Your task to perform on an android device: Go to notification settings Image 0: 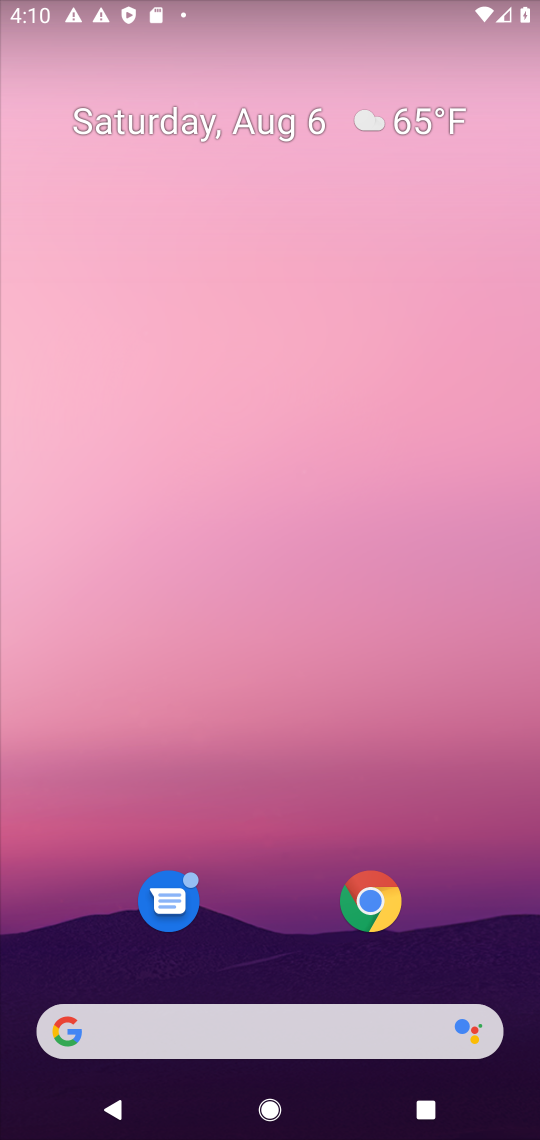
Step 0: press home button
Your task to perform on an android device: Go to notification settings Image 1: 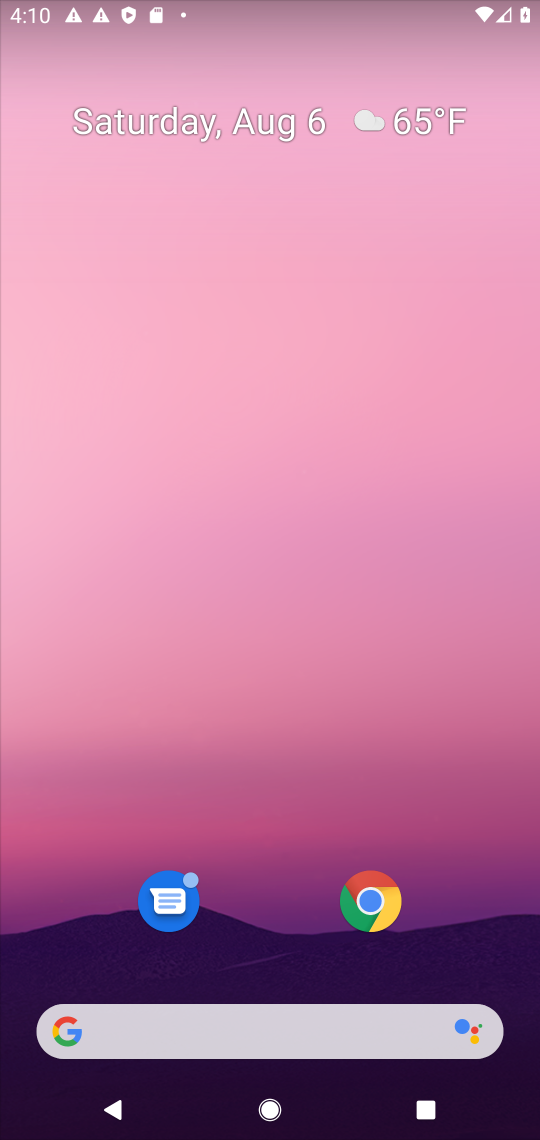
Step 1: drag from (250, 847) to (266, 3)
Your task to perform on an android device: Go to notification settings Image 2: 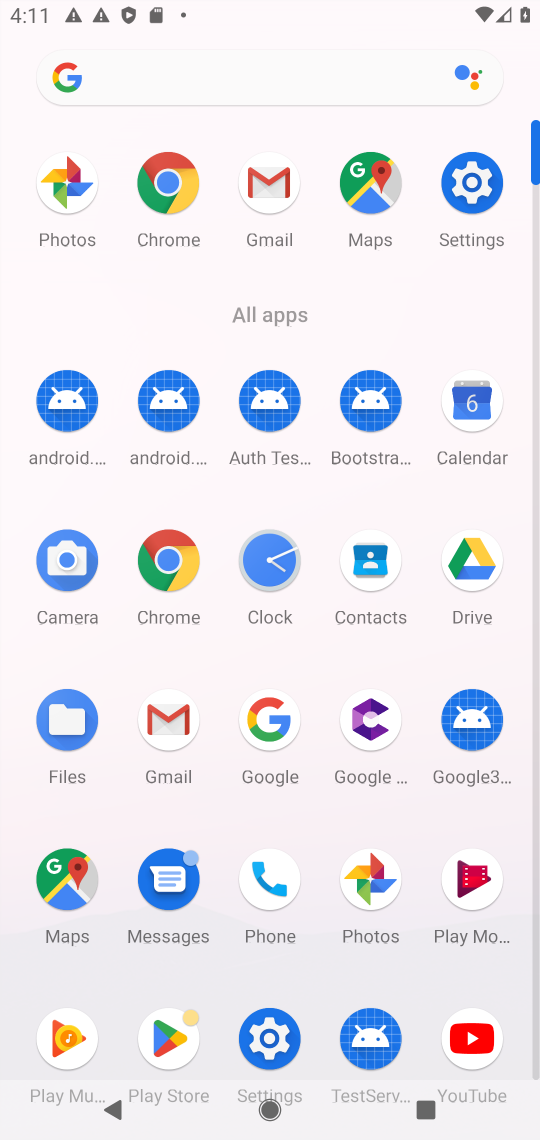
Step 2: click (272, 1038)
Your task to perform on an android device: Go to notification settings Image 3: 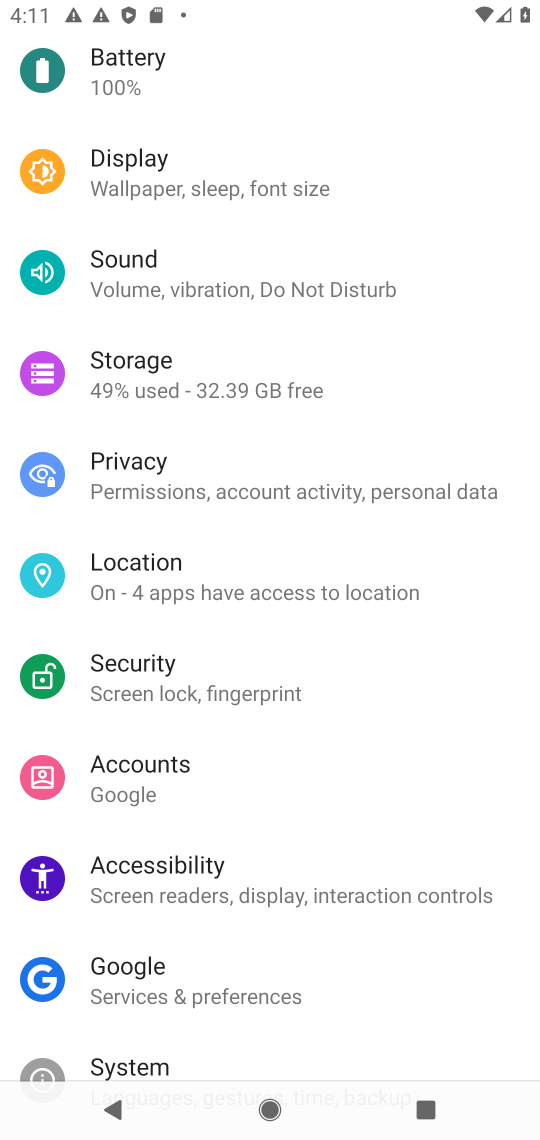
Step 3: click (133, 167)
Your task to perform on an android device: Go to notification settings Image 4: 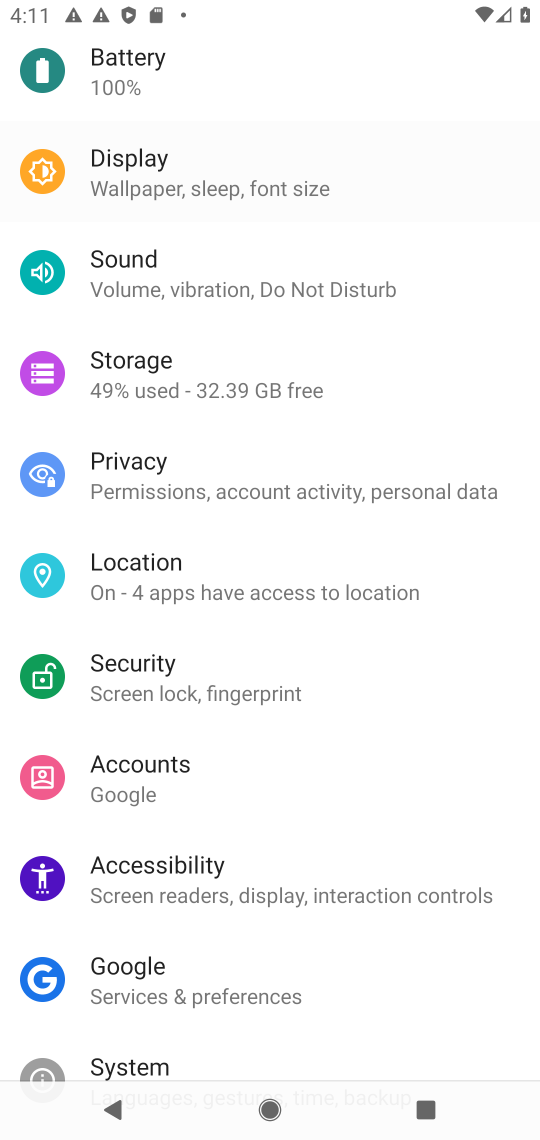
Step 4: drag from (156, 316) to (165, 430)
Your task to perform on an android device: Go to notification settings Image 5: 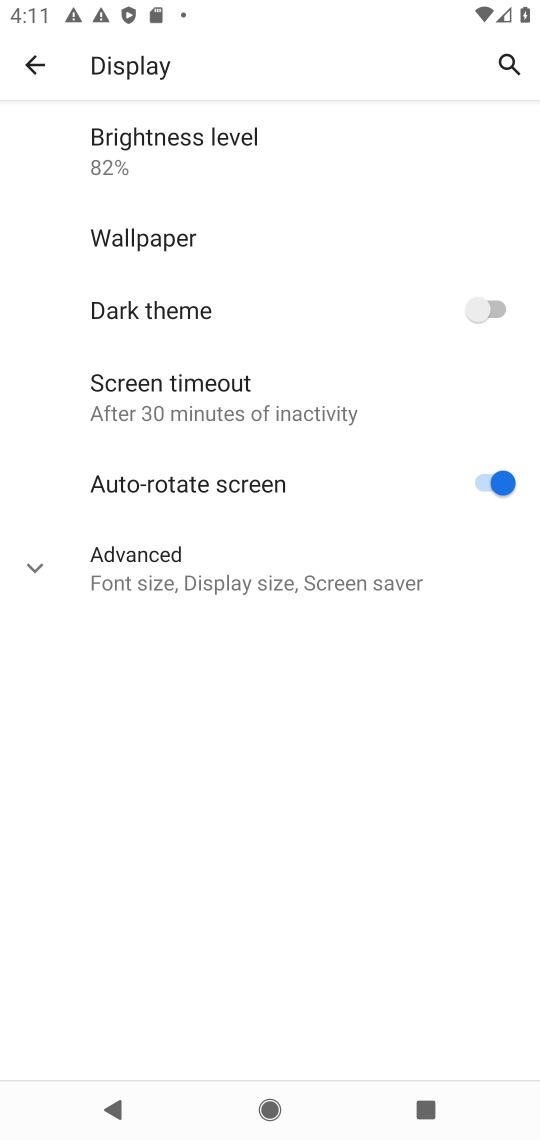
Step 5: click (38, 70)
Your task to perform on an android device: Go to notification settings Image 6: 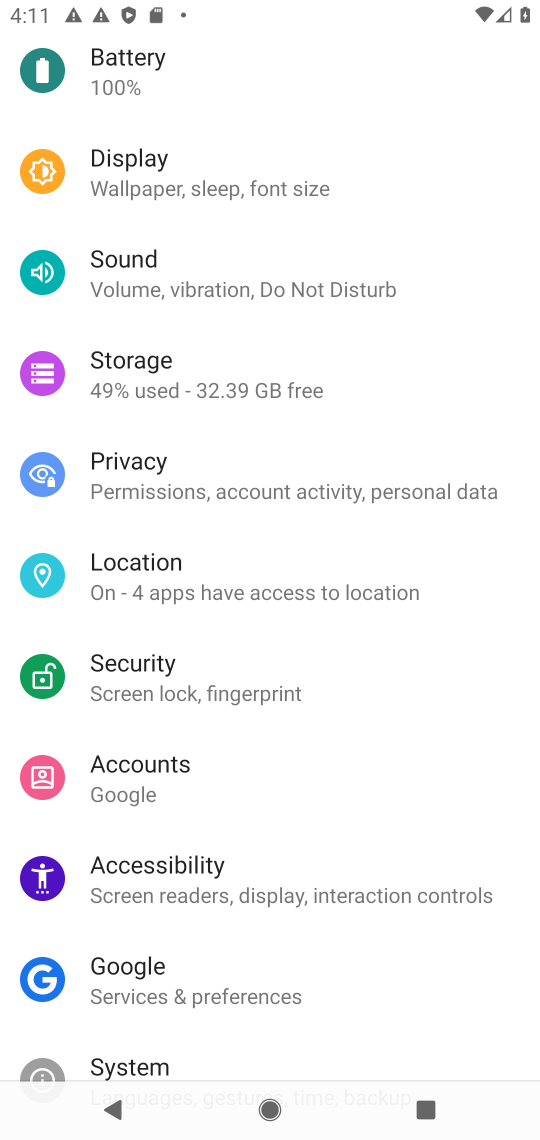
Step 6: drag from (210, 320) to (187, 923)
Your task to perform on an android device: Go to notification settings Image 7: 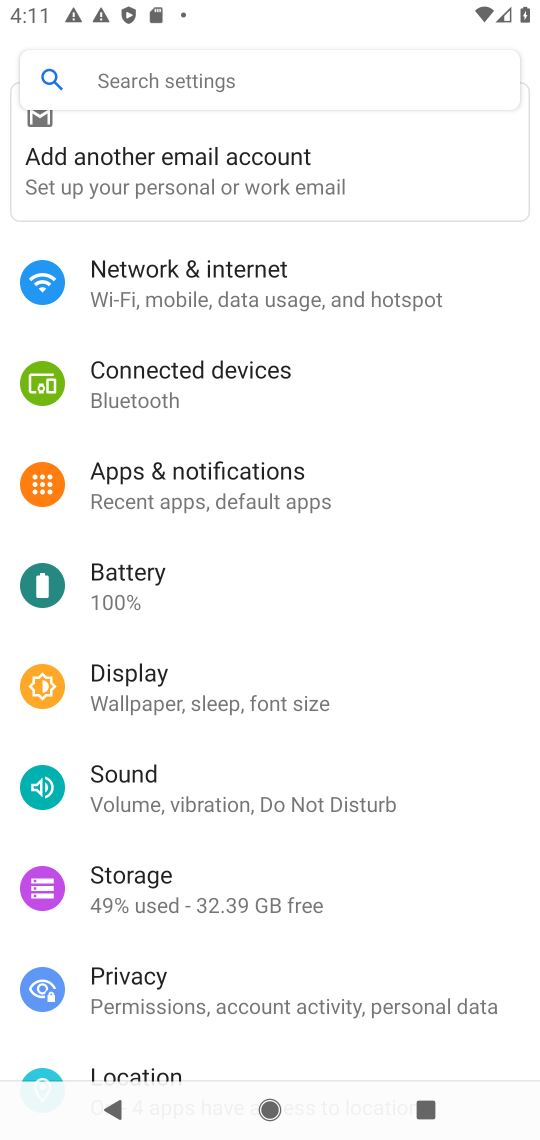
Step 7: click (160, 492)
Your task to perform on an android device: Go to notification settings Image 8: 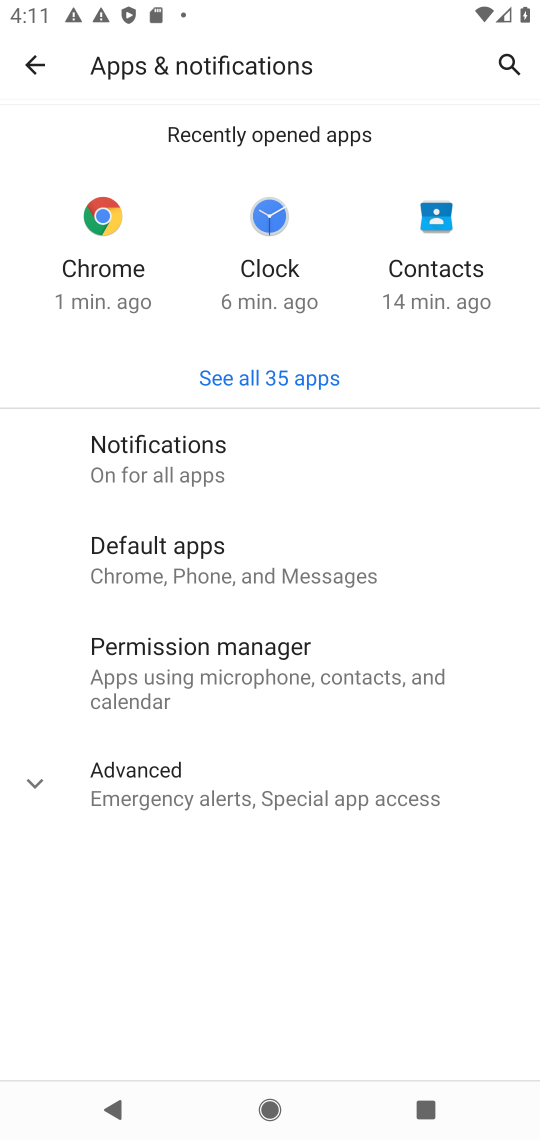
Step 8: click (198, 465)
Your task to perform on an android device: Go to notification settings Image 9: 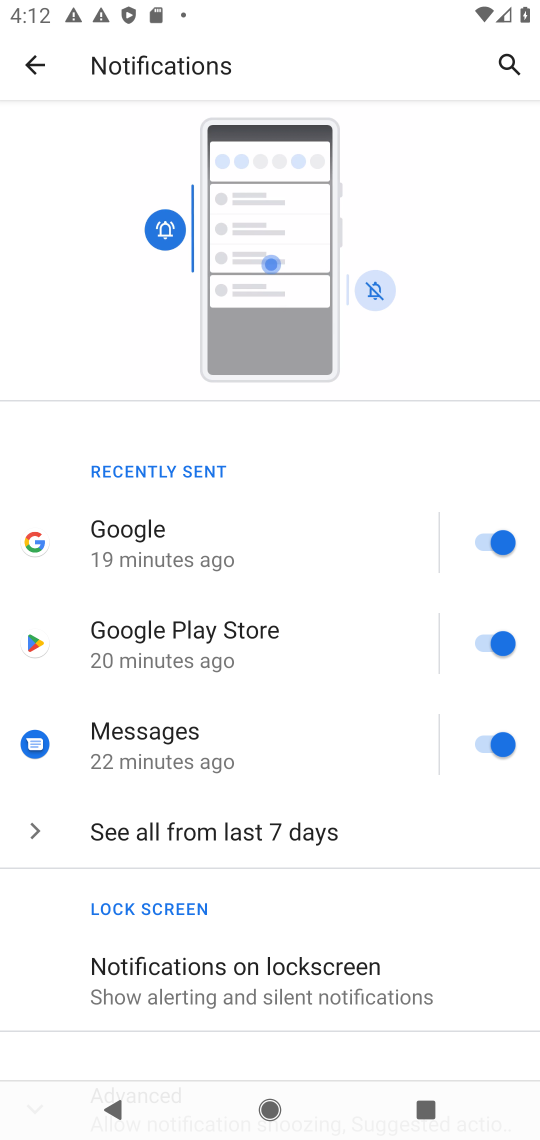
Step 9: task complete